Your task to perform on an android device: Open the calendar and show me this week's events? Image 0: 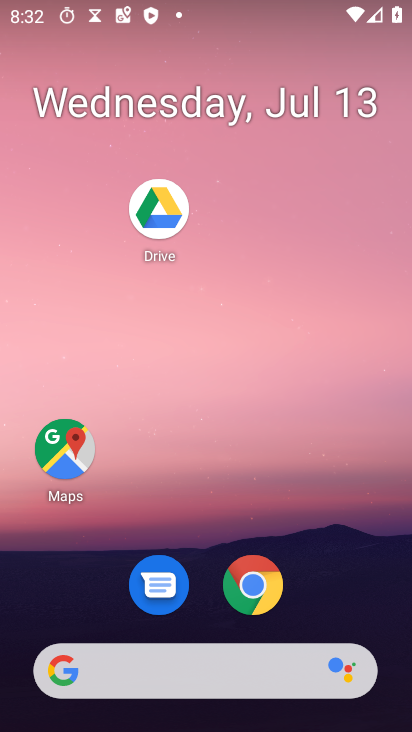
Step 0: drag from (185, 683) to (266, 131)
Your task to perform on an android device: Open the calendar and show me this week's events? Image 1: 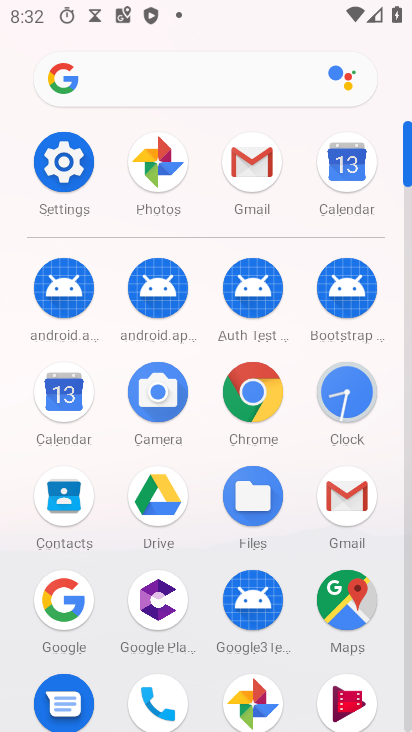
Step 1: click (351, 170)
Your task to perform on an android device: Open the calendar and show me this week's events? Image 2: 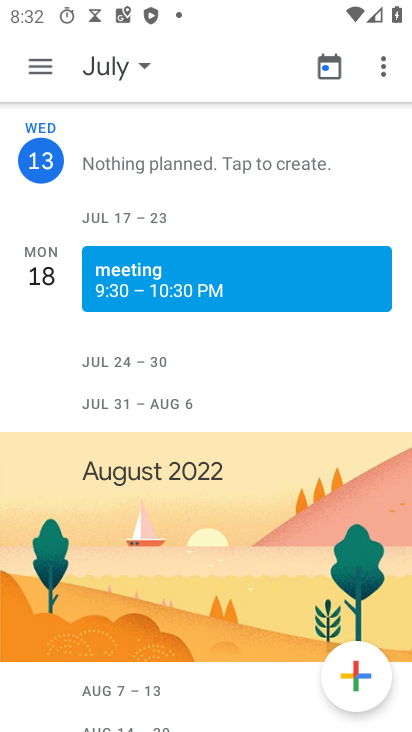
Step 2: click (120, 68)
Your task to perform on an android device: Open the calendar and show me this week's events? Image 3: 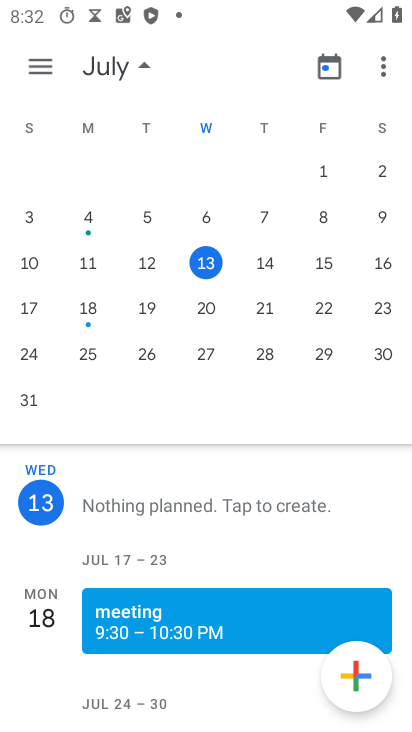
Step 3: click (37, 68)
Your task to perform on an android device: Open the calendar and show me this week's events? Image 4: 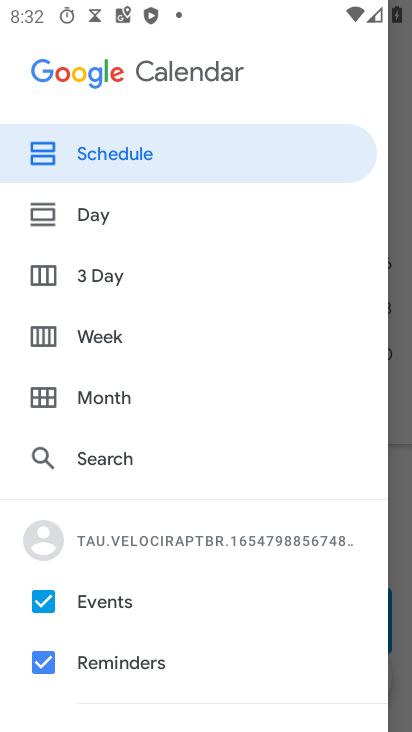
Step 4: click (116, 340)
Your task to perform on an android device: Open the calendar and show me this week's events? Image 5: 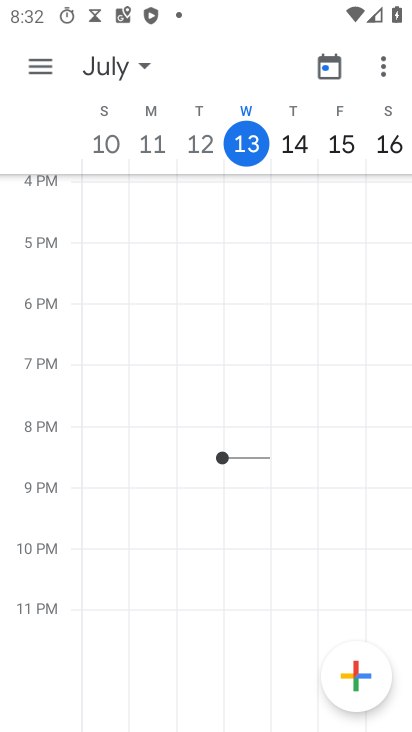
Step 5: click (45, 71)
Your task to perform on an android device: Open the calendar and show me this week's events? Image 6: 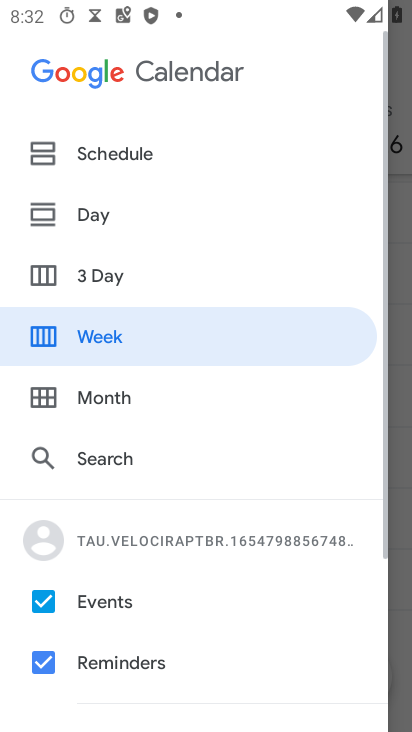
Step 6: click (144, 146)
Your task to perform on an android device: Open the calendar and show me this week's events? Image 7: 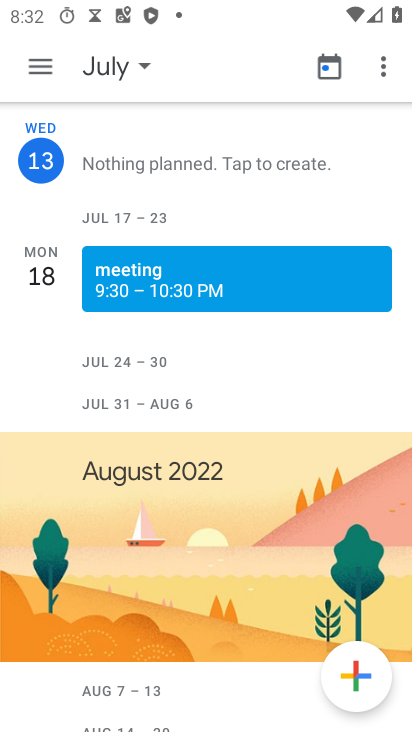
Step 7: task complete